Your task to perform on an android device: turn on notifications settings in the gmail app Image 0: 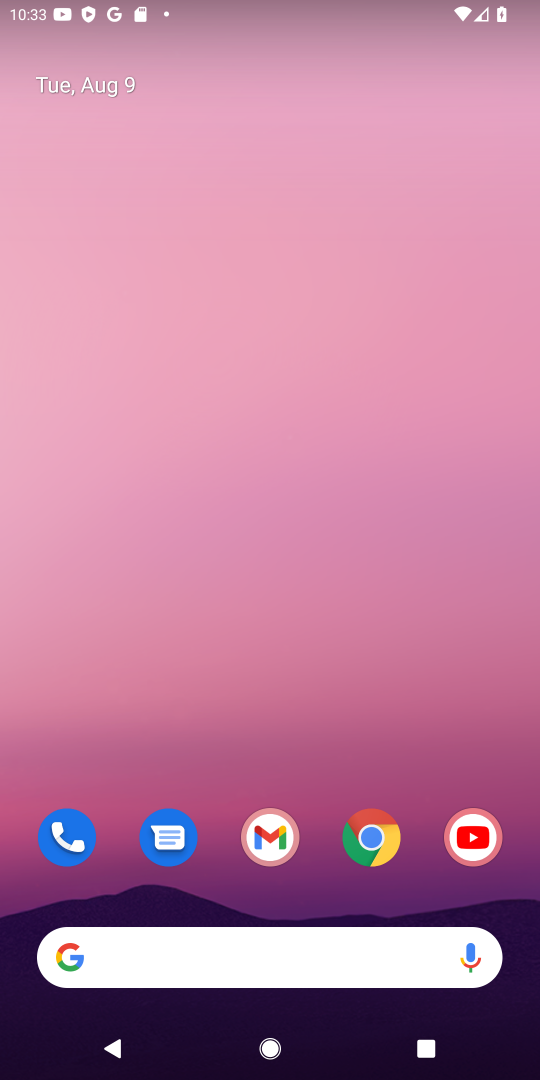
Step 0: drag from (322, 847) to (323, 107)
Your task to perform on an android device: turn on notifications settings in the gmail app Image 1: 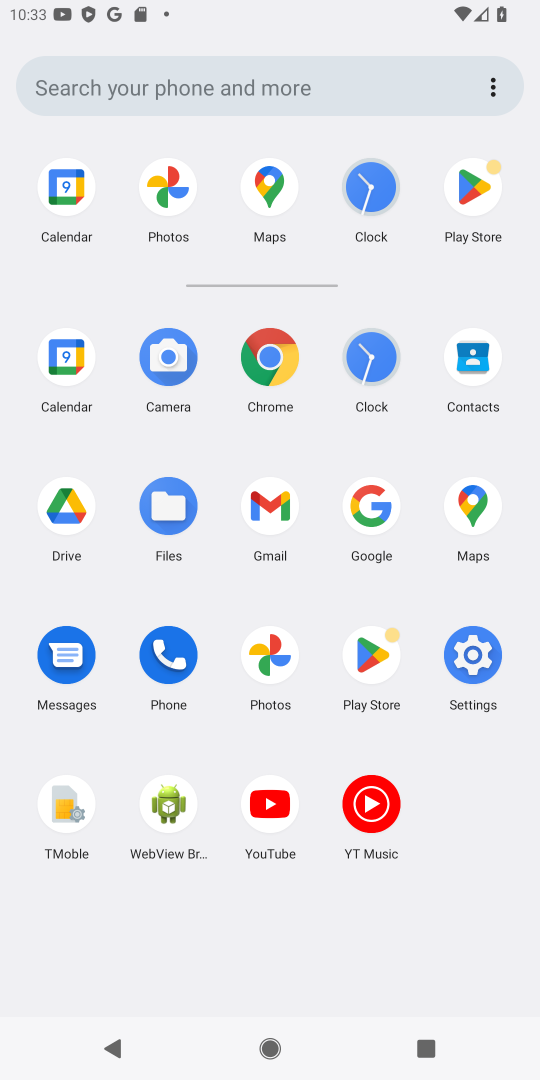
Step 1: click (273, 501)
Your task to perform on an android device: turn on notifications settings in the gmail app Image 2: 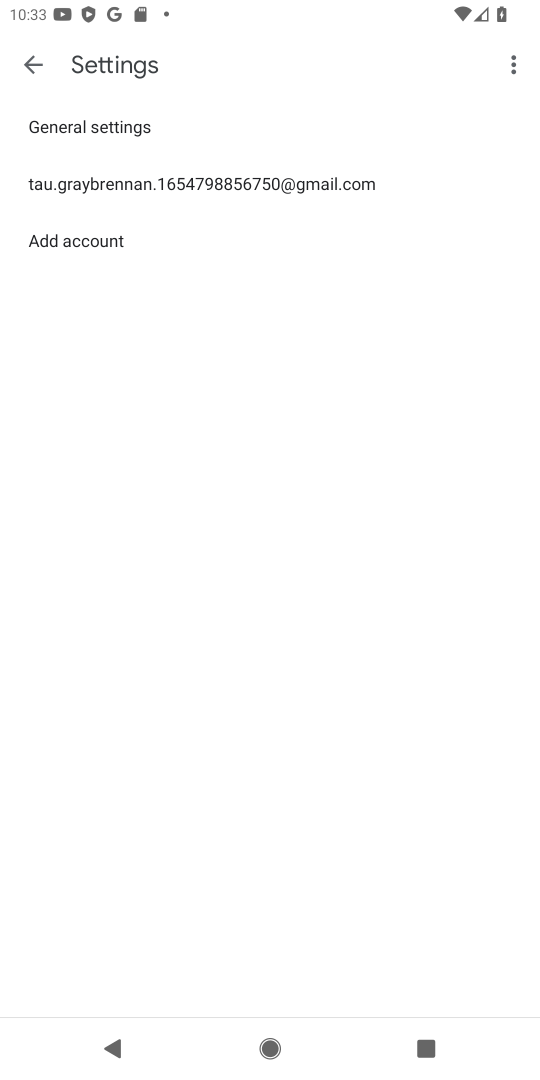
Step 2: click (165, 177)
Your task to perform on an android device: turn on notifications settings in the gmail app Image 3: 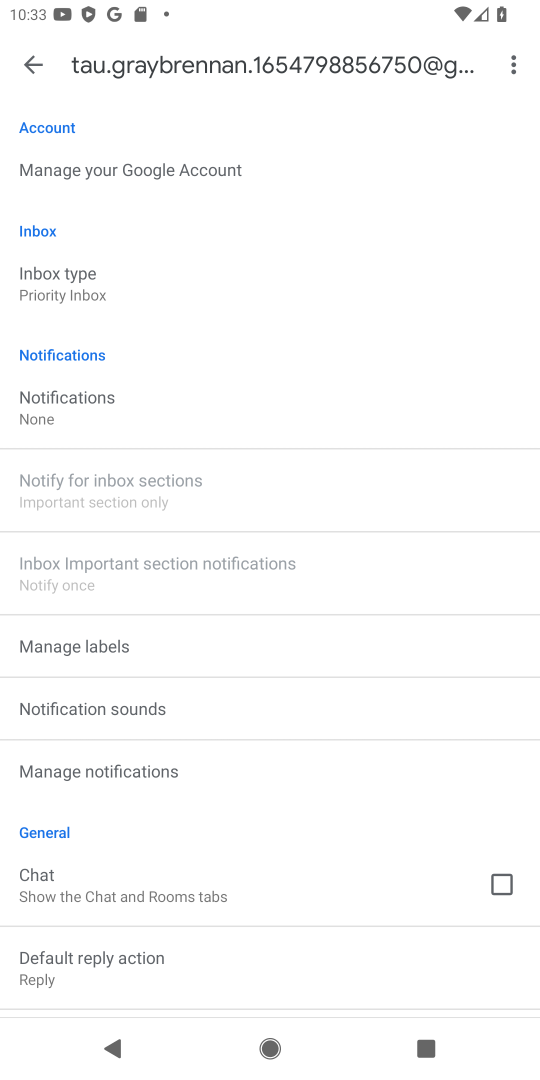
Step 3: click (89, 407)
Your task to perform on an android device: turn on notifications settings in the gmail app Image 4: 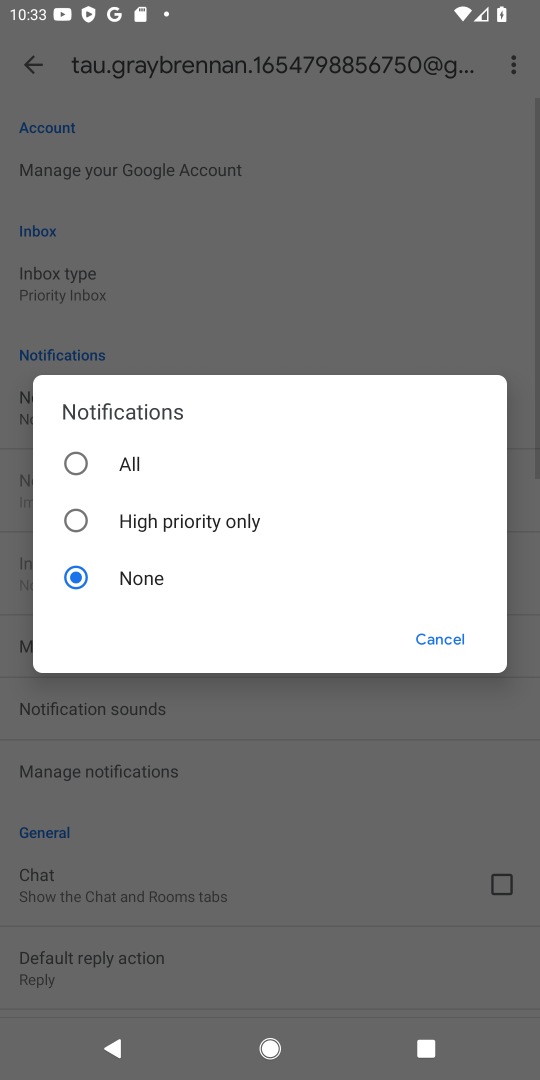
Step 4: click (70, 462)
Your task to perform on an android device: turn on notifications settings in the gmail app Image 5: 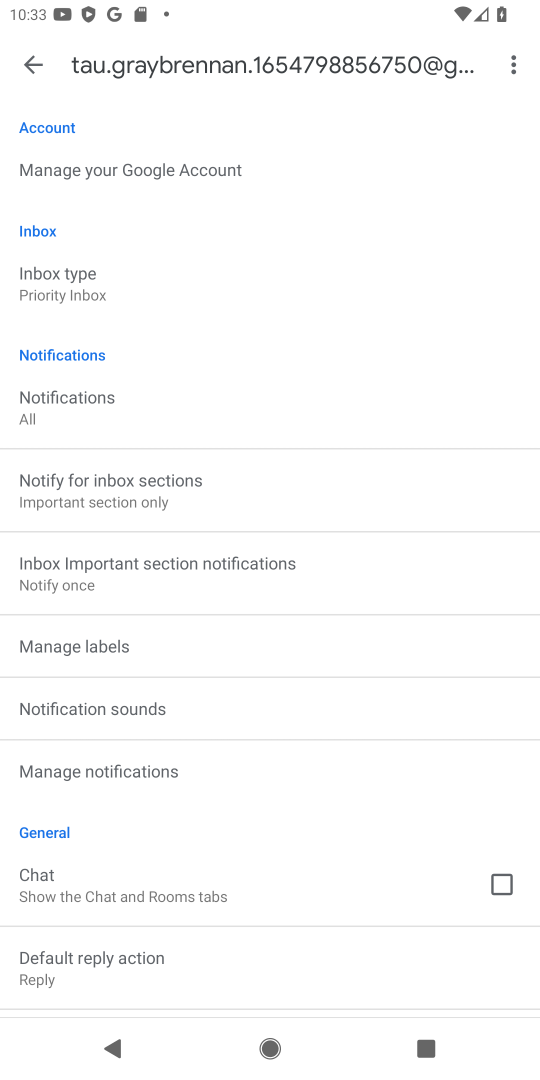
Step 5: task complete